Your task to perform on an android device: add a contact Image 0: 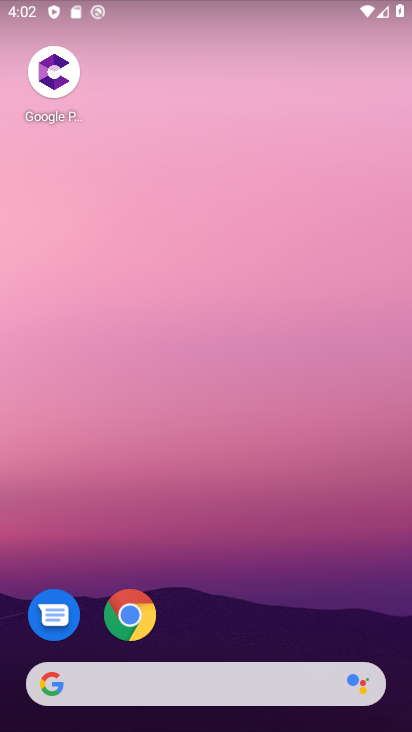
Step 0: drag from (255, 657) to (268, 374)
Your task to perform on an android device: add a contact Image 1: 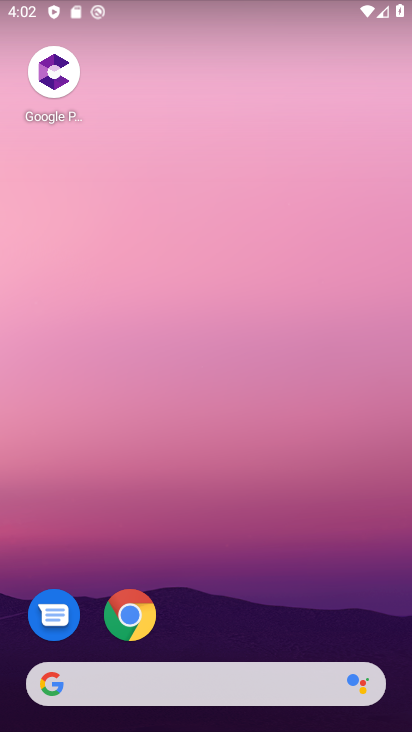
Step 1: drag from (202, 639) to (285, 110)
Your task to perform on an android device: add a contact Image 2: 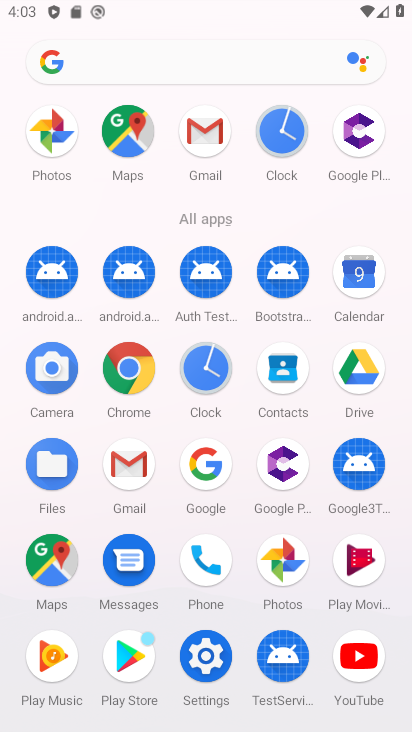
Step 2: click (269, 376)
Your task to perform on an android device: add a contact Image 3: 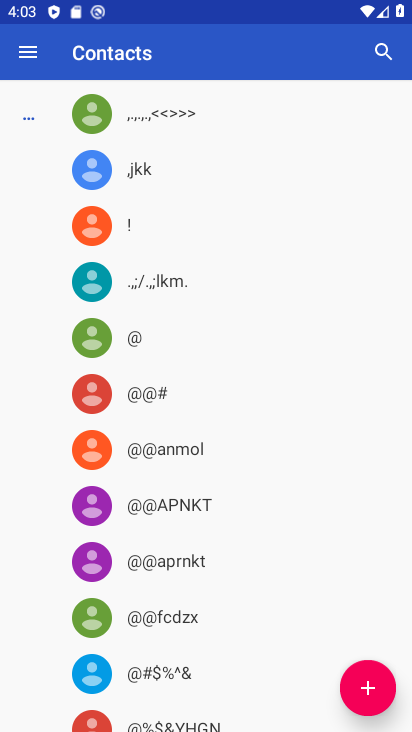
Step 3: click (389, 676)
Your task to perform on an android device: add a contact Image 4: 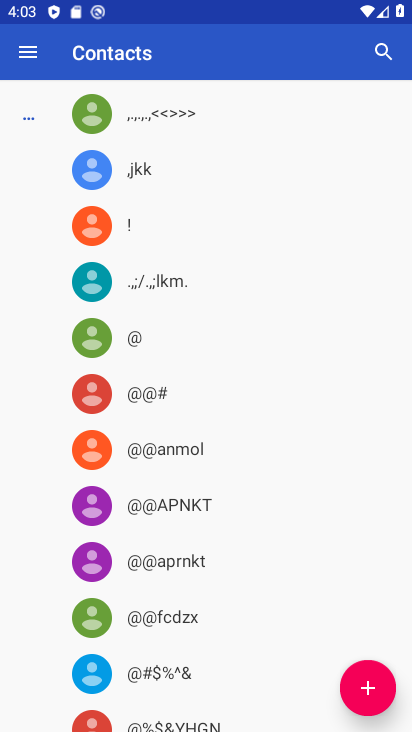
Step 4: click (389, 676)
Your task to perform on an android device: add a contact Image 5: 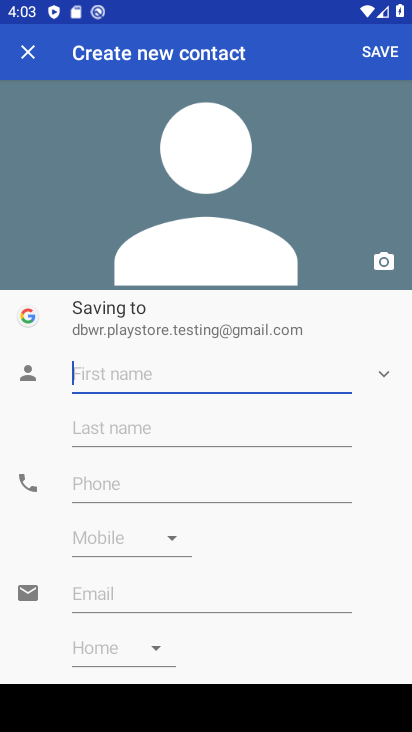
Step 5: click (147, 379)
Your task to perform on an android device: add a contact Image 6: 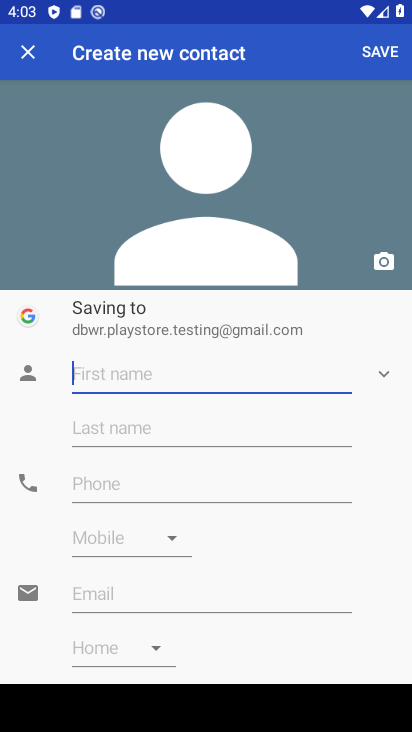
Step 6: type "BOB"
Your task to perform on an android device: add a contact Image 7: 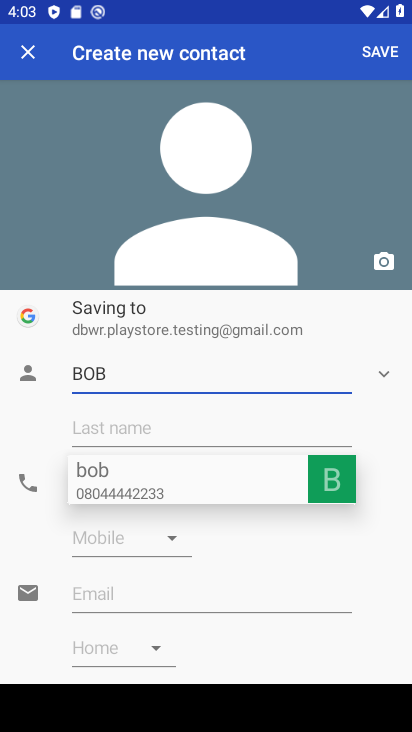
Step 7: type " WIKK"
Your task to perform on an android device: add a contact Image 8: 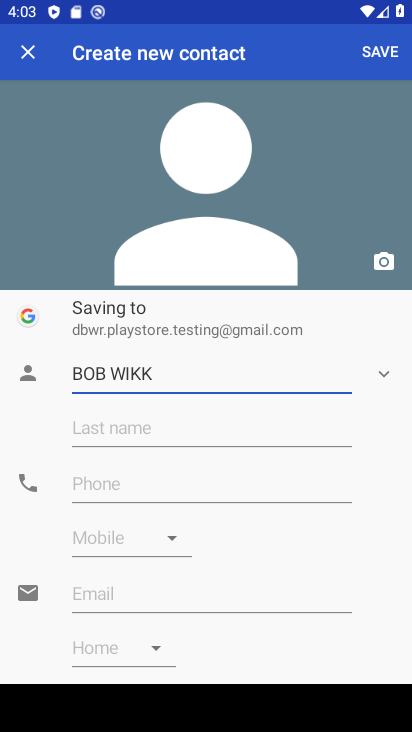
Step 8: click (116, 495)
Your task to perform on an android device: add a contact Image 9: 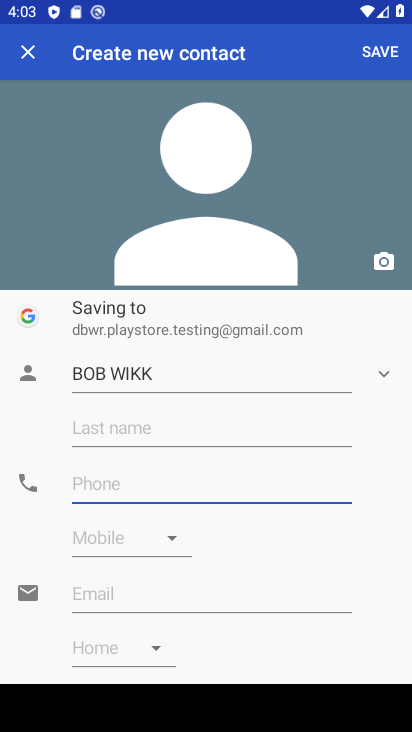
Step 9: type "2823282309"
Your task to perform on an android device: add a contact Image 10: 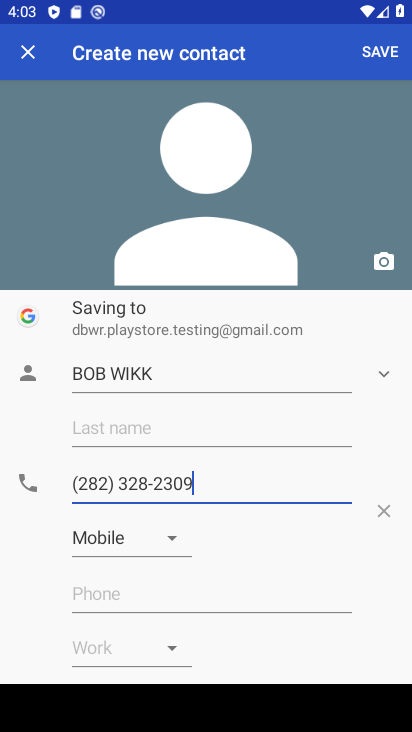
Step 10: click (391, 50)
Your task to perform on an android device: add a contact Image 11: 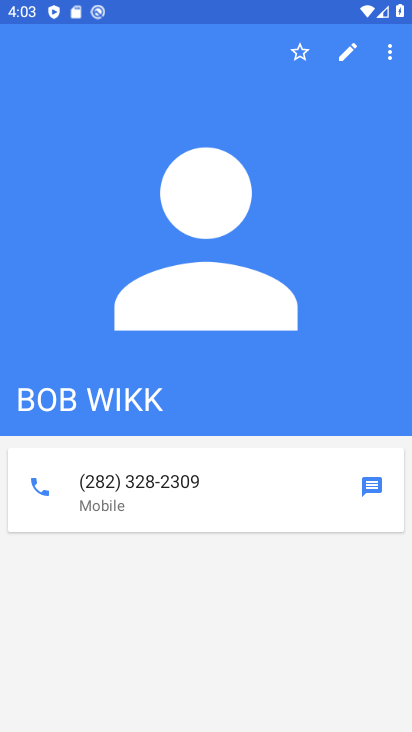
Step 11: task complete